Your task to perform on an android device: Do I have any events this weekend? Image 0: 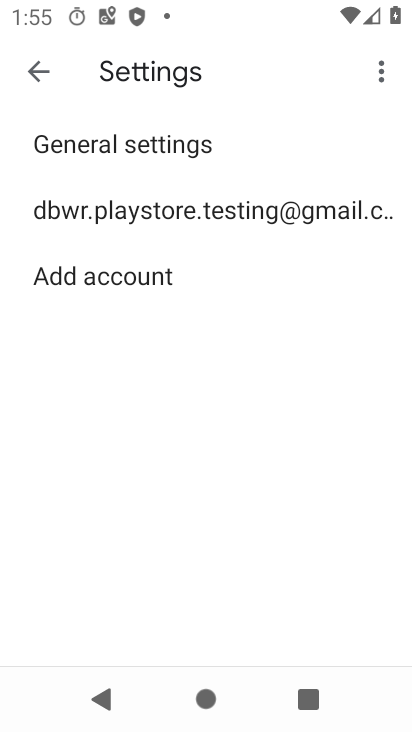
Step 0: press home button
Your task to perform on an android device: Do I have any events this weekend? Image 1: 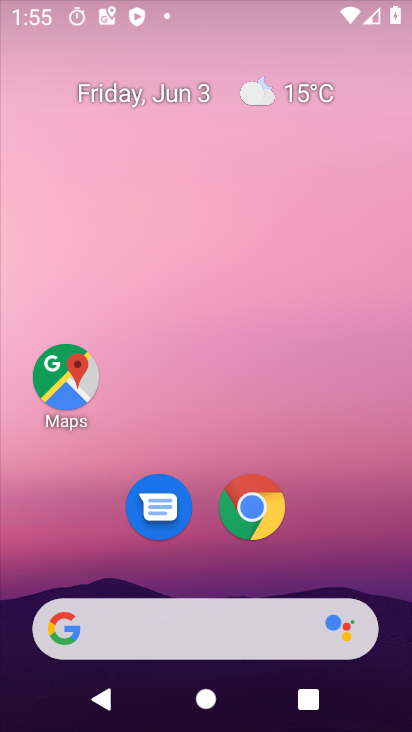
Step 1: drag from (394, 629) to (398, 409)
Your task to perform on an android device: Do I have any events this weekend? Image 2: 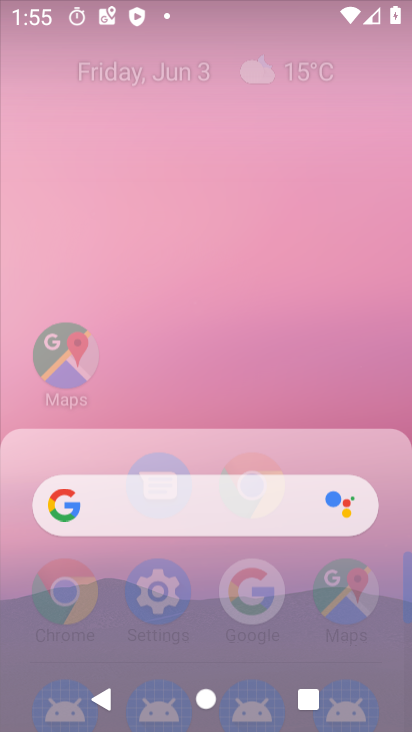
Step 2: drag from (380, 170) to (342, 34)
Your task to perform on an android device: Do I have any events this weekend? Image 3: 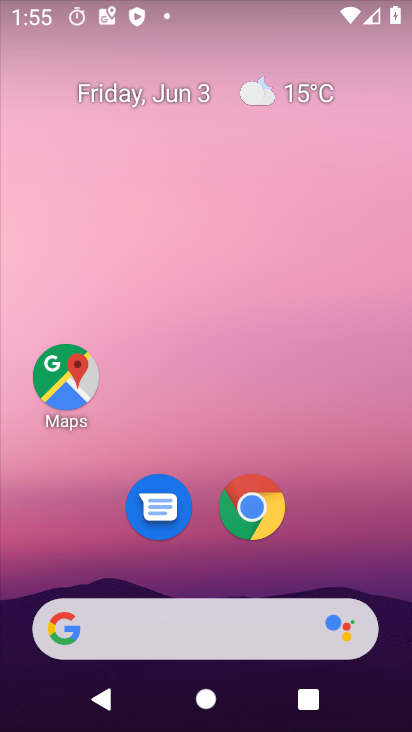
Step 3: drag from (396, 638) to (342, 15)
Your task to perform on an android device: Do I have any events this weekend? Image 4: 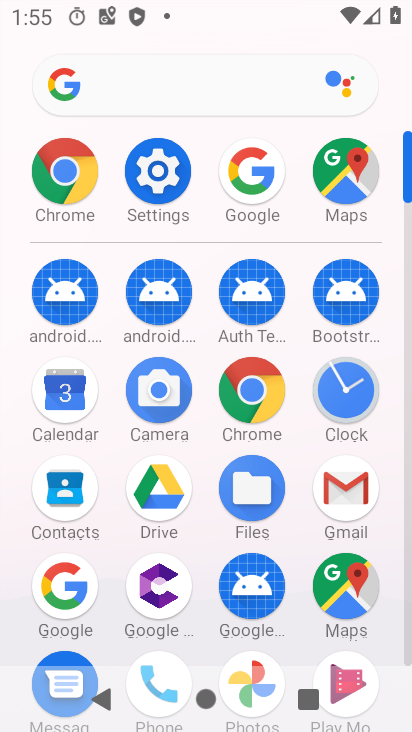
Step 4: click (64, 405)
Your task to perform on an android device: Do I have any events this weekend? Image 5: 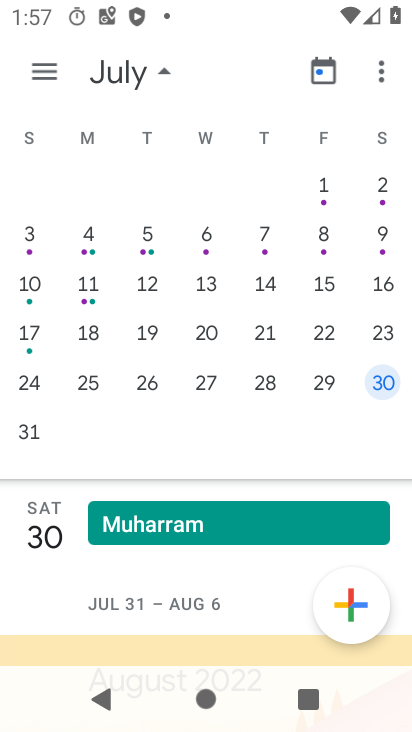
Step 5: task complete